Your task to perform on an android device: Open wifi settings Image 0: 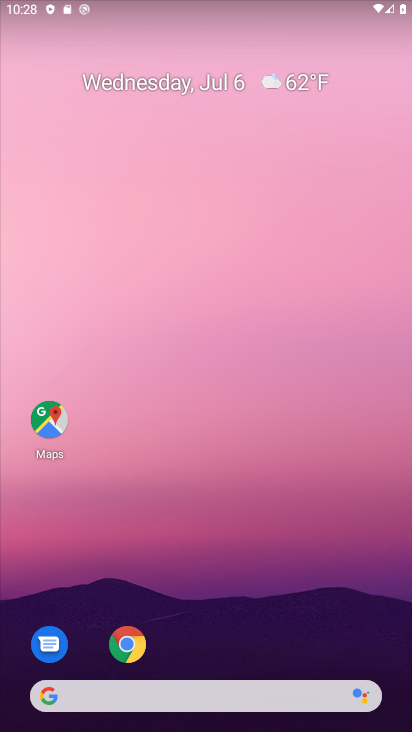
Step 0: drag from (233, 637) to (197, 28)
Your task to perform on an android device: Open wifi settings Image 1: 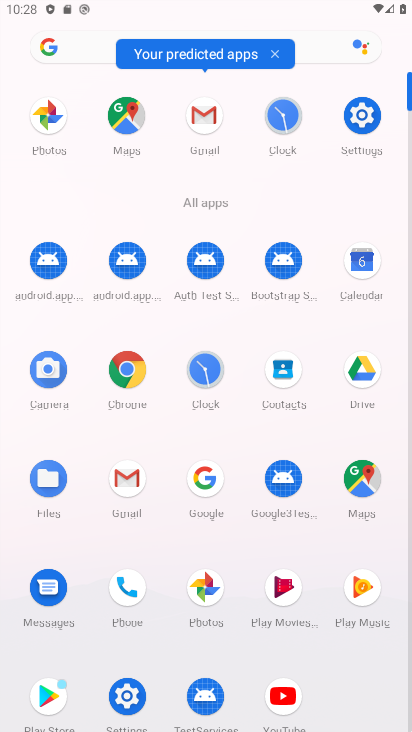
Step 1: click (364, 121)
Your task to perform on an android device: Open wifi settings Image 2: 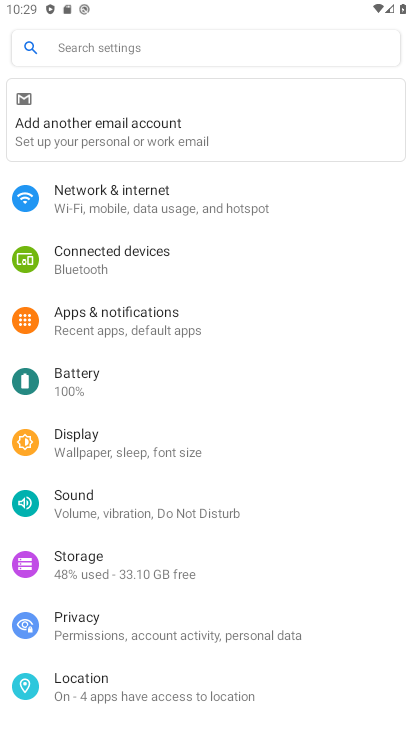
Step 2: click (105, 196)
Your task to perform on an android device: Open wifi settings Image 3: 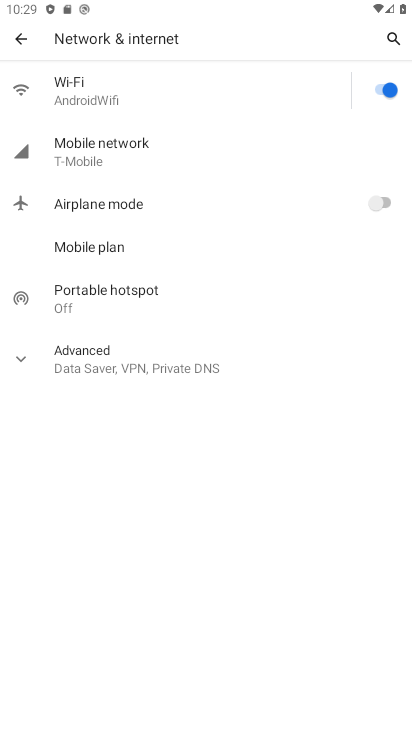
Step 3: click (66, 93)
Your task to perform on an android device: Open wifi settings Image 4: 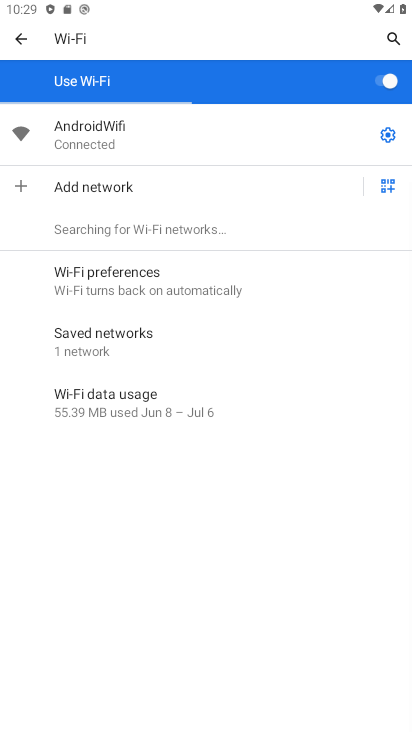
Step 4: task complete